Your task to perform on an android device: change alarm snooze length Image 0: 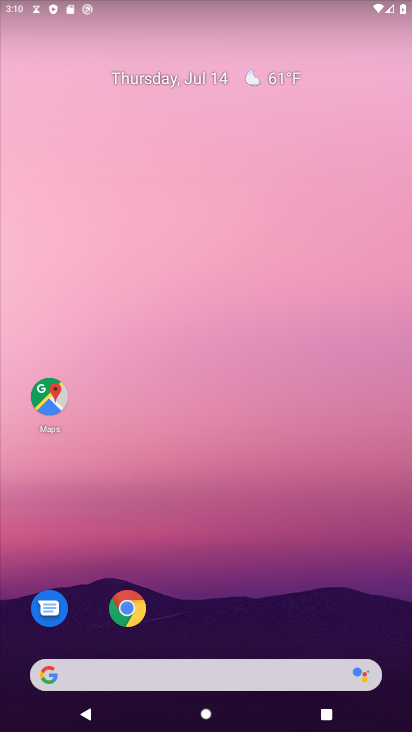
Step 0: drag from (186, 671) to (182, 231)
Your task to perform on an android device: change alarm snooze length Image 1: 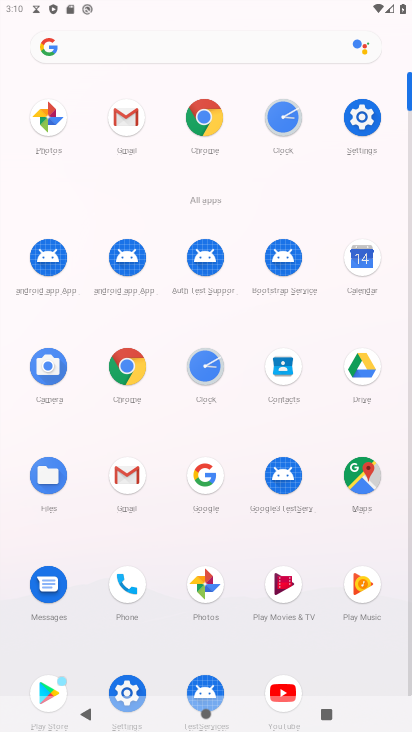
Step 1: click (209, 372)
Your task to perform on an android device: change alarm snooze length Image 2: 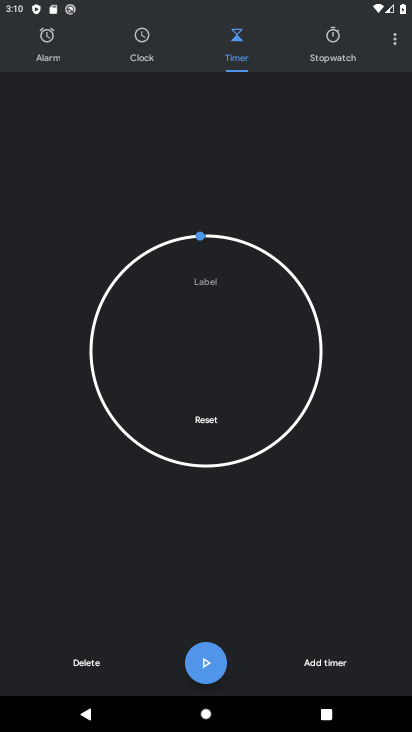
Step 2: click (400, 37)
Your task to perform on an android device: change alarm snooze length Image 3: 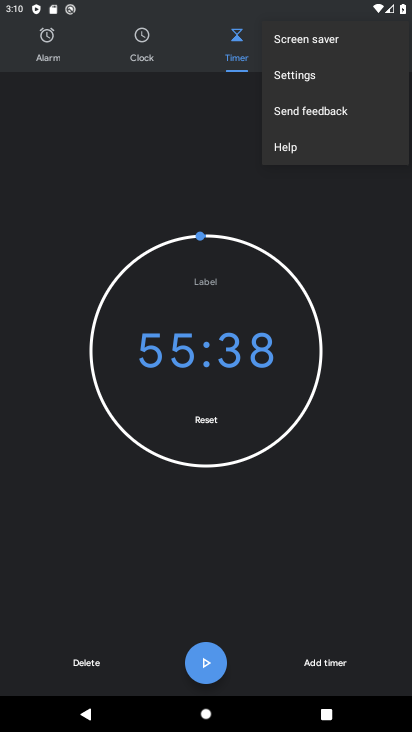
Step 3: click (345, 74)
Your task to perform on an android device: change alarm snooze length Image 4: 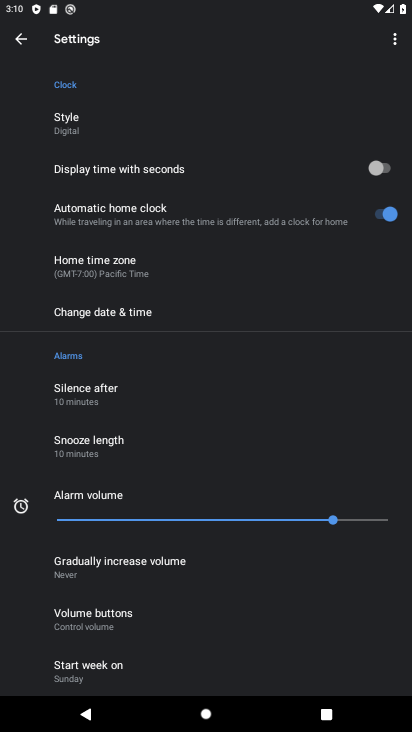
Step 4: click (138, 436)
Your task to perform on an android device: change alarm snooze length Image 5: 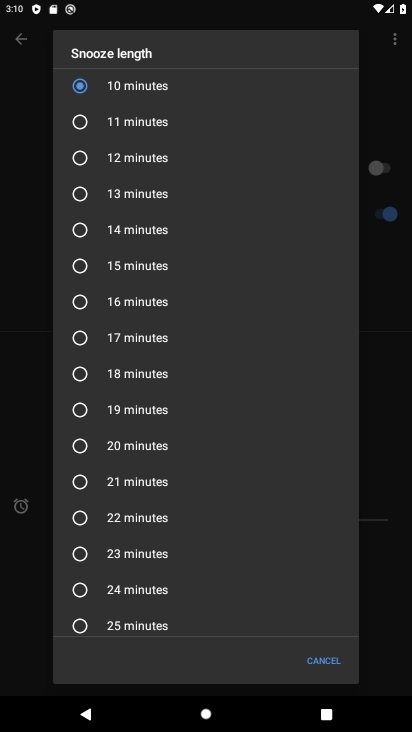
Step 5: click (112, 412)
Your task to perform on an android device: change alarm snooze length Image 6: 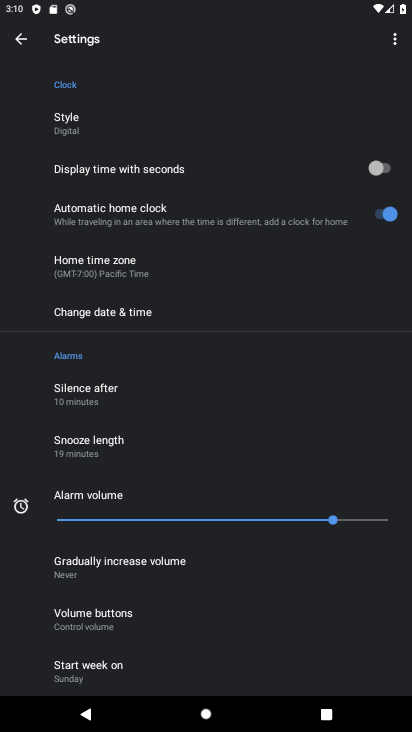
Step 6: task complete